Your task to perform on an android device: Go to eBay Image 0: 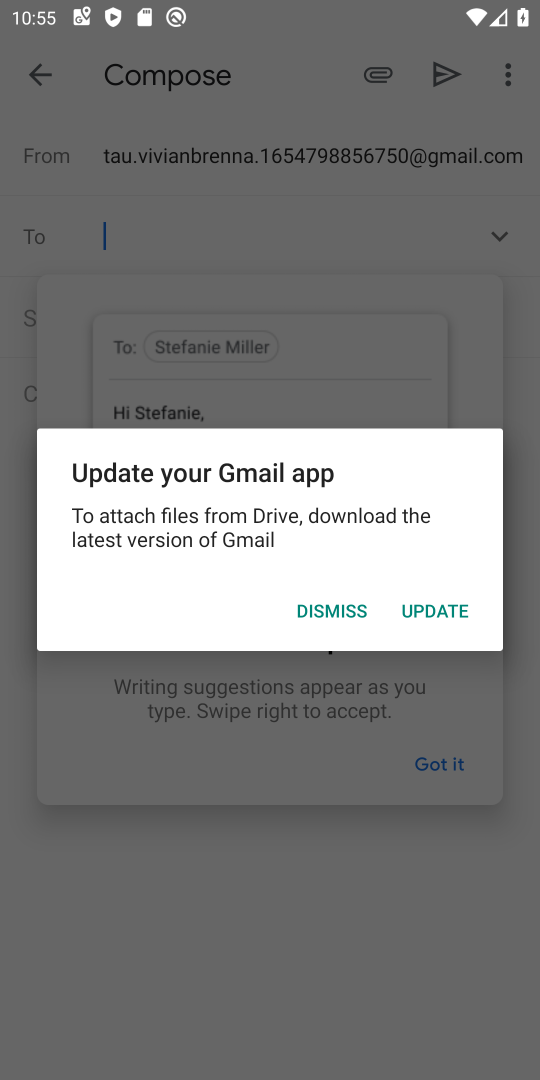
Step 0: press home button
Your task to perform on an android device: Go to eBay Image 1: 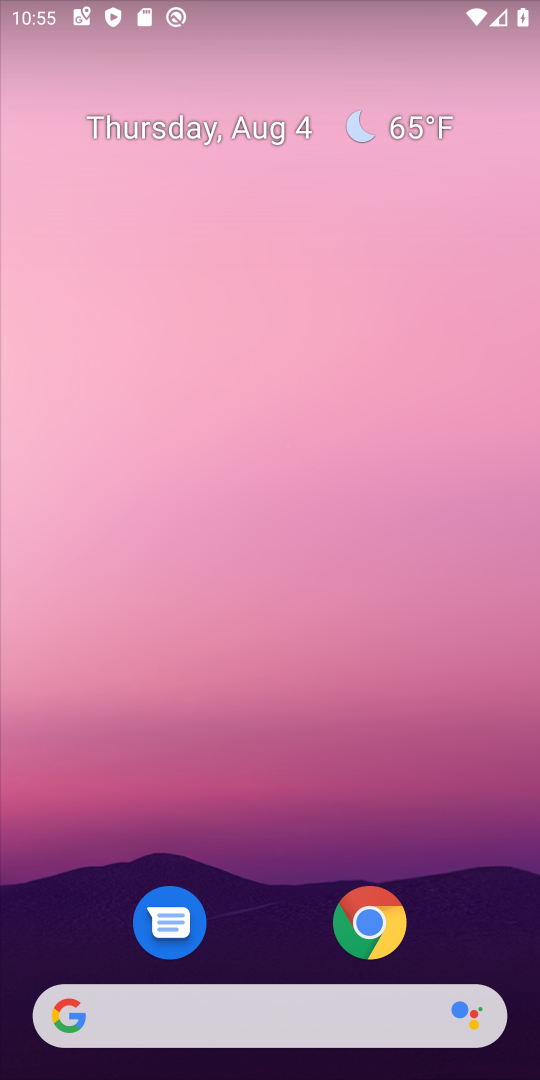
Step 1: drag from (262, 436) to (262, 387)
Your task to perform on an android device: Go to eBay Image 2: 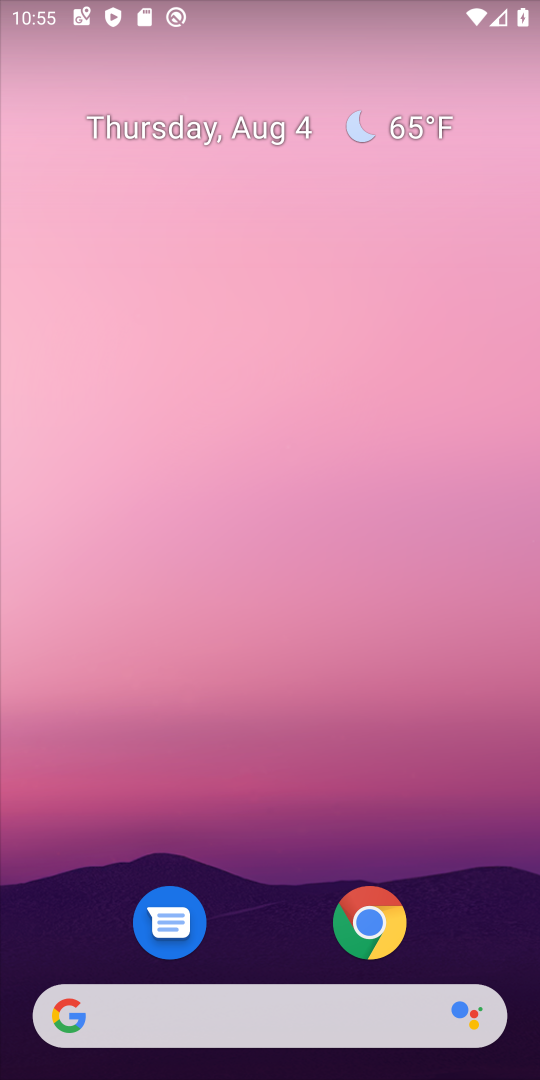
Step 2: drag from (278, 997) to (291, 244)
Your task to perform on an android device: Go to eBay Image 3: 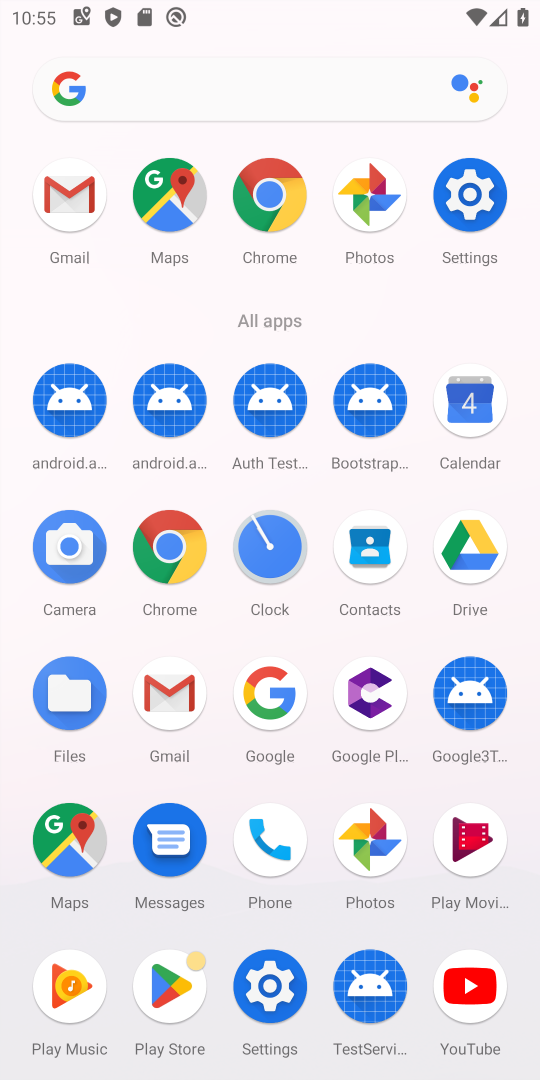
Step 3: click (266, 200)
Your task to perform on an android device: Go to eBay Image 4: 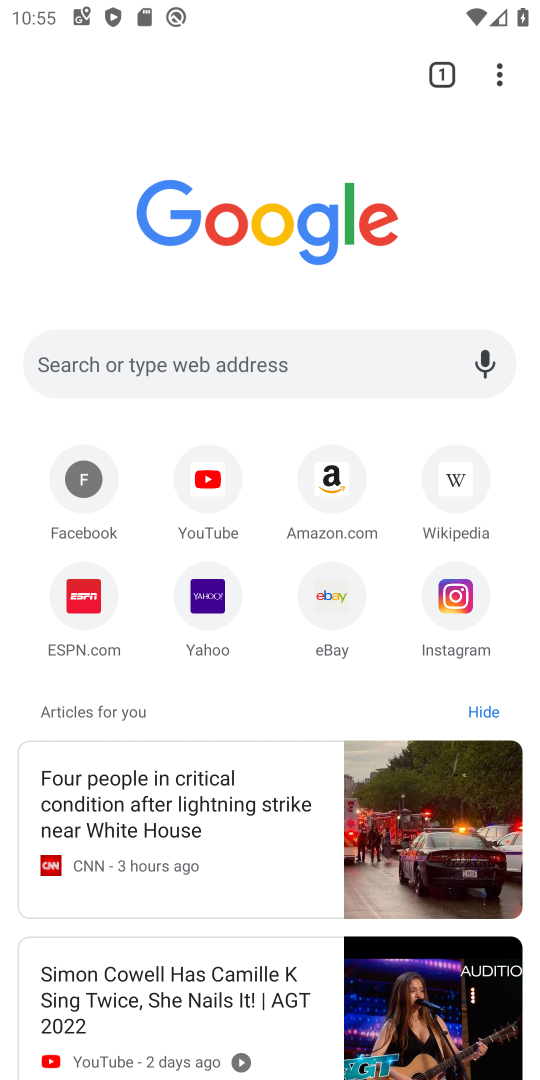
Step 4: click (350, 598)
Your task to perform on an android device: Go to eBay Image 5: 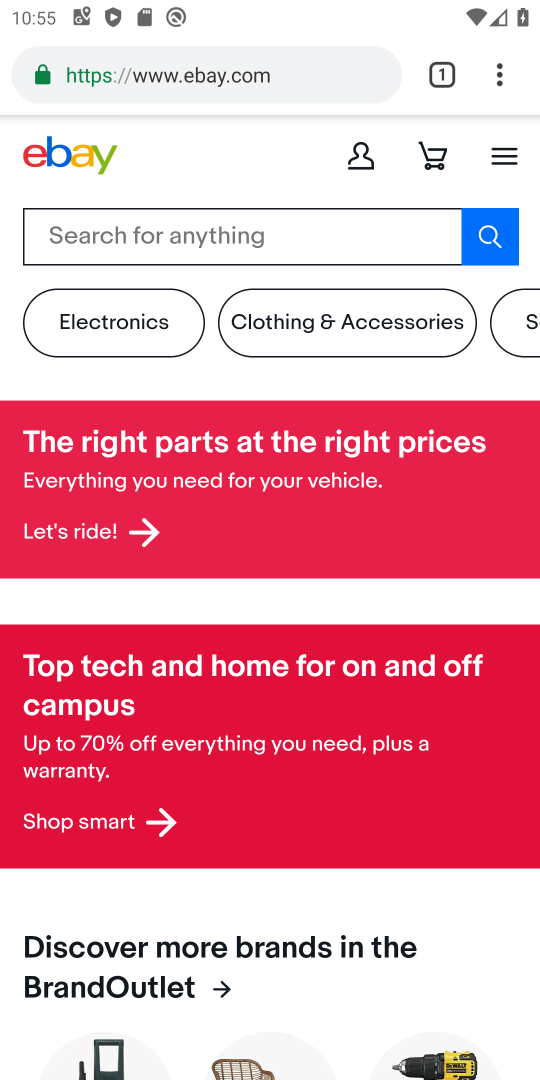
Step 5: task complete